Your task to perform on an android device: snooze an email in the gmail app Image 0: 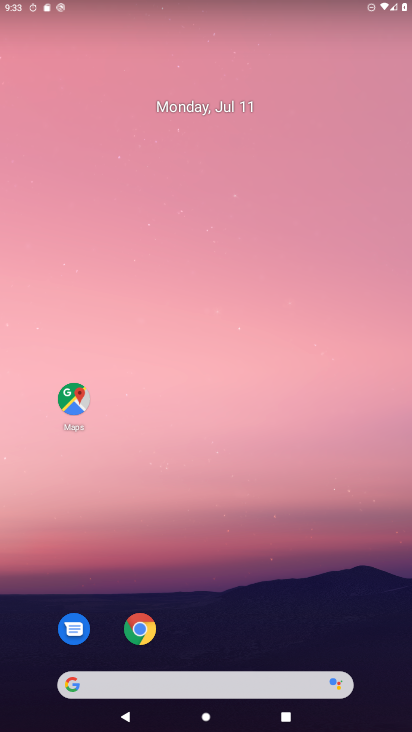
Step 0: drag from (196, 644) to (259, 92)
Your task to perform on an android device: snooze an email in the gmail app Image 1: 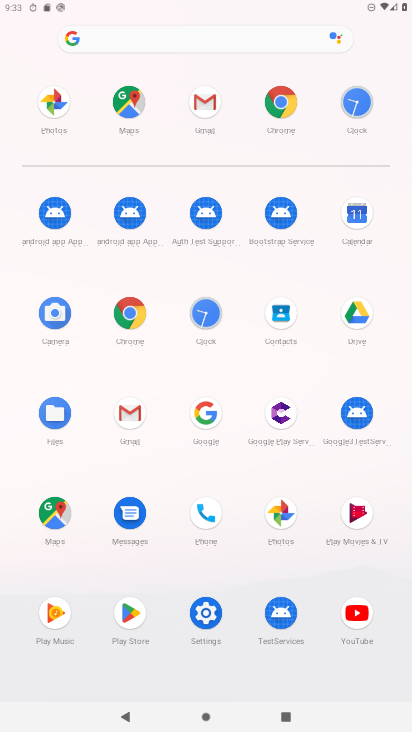
Step 1: click (211, 113)
Your task to perform on an android device: snooze an email in the gmail app Image 2: 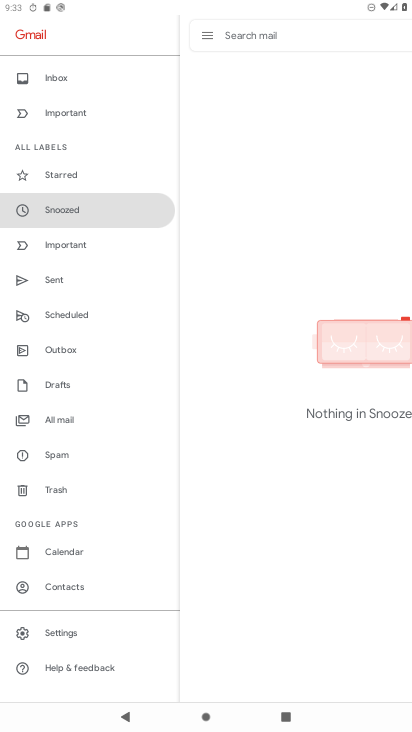
Step 2: click (70, 425)
Your task to perform on an android device: snooze an email in the gmail app Image 3: 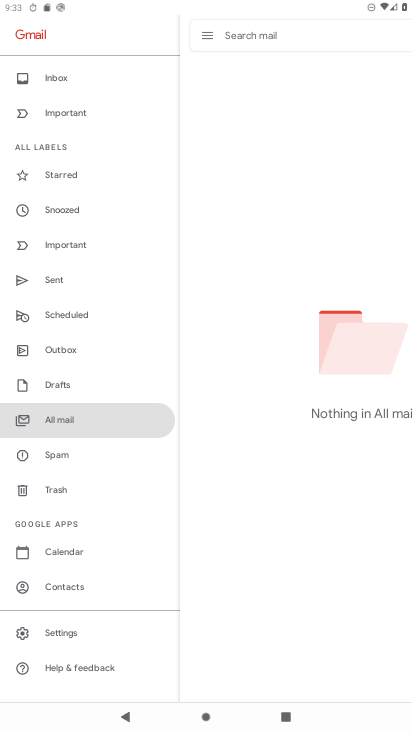
Step 3: task complete